Your task to perform on an android device: Open sound settings Image 0: 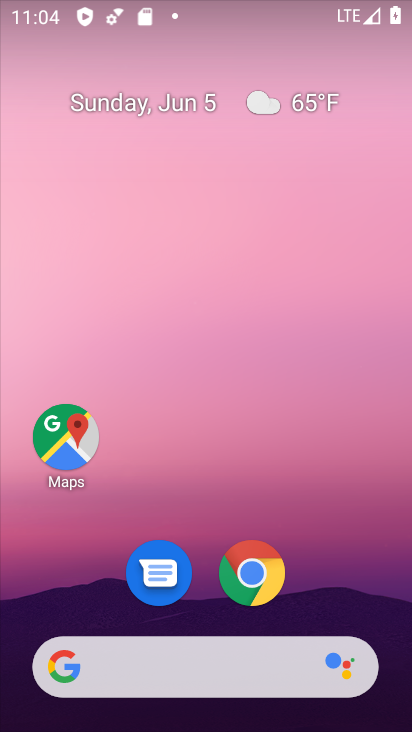
Step 0: drag from (209, 584) to (221, 200)
Your task to perform on an android device: Open sound settings Image 1: 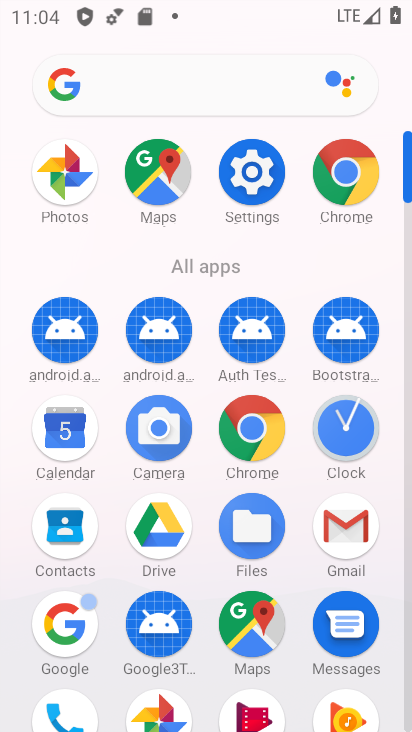
Step 1: drag from (206, 267) to (230, 56)
Your task to perform on an android device: Open sound settings Image 2: 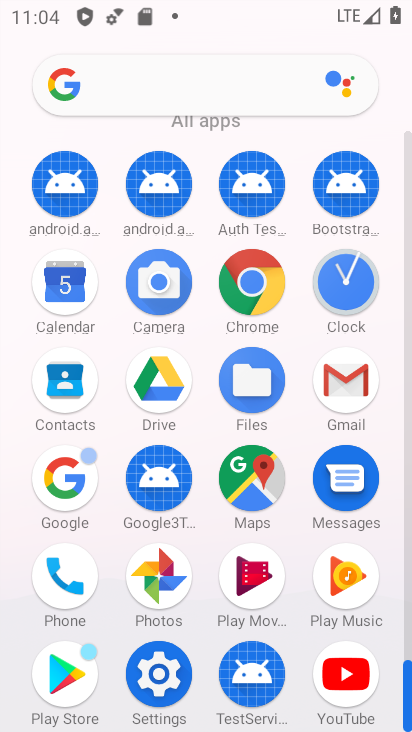
Step 2: click (167, 671)
Your task to perform on an android device: Open sound settings Image 3: 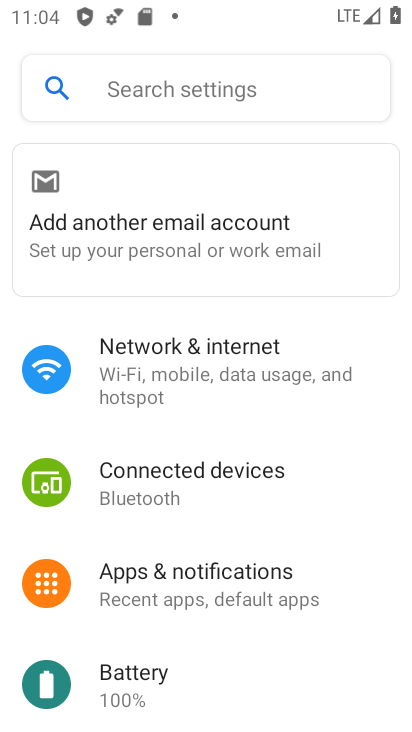
Step 3: drag from (247, 652) to (275, 238)
Your task to perform on an android device: Open sound settings Image 4: 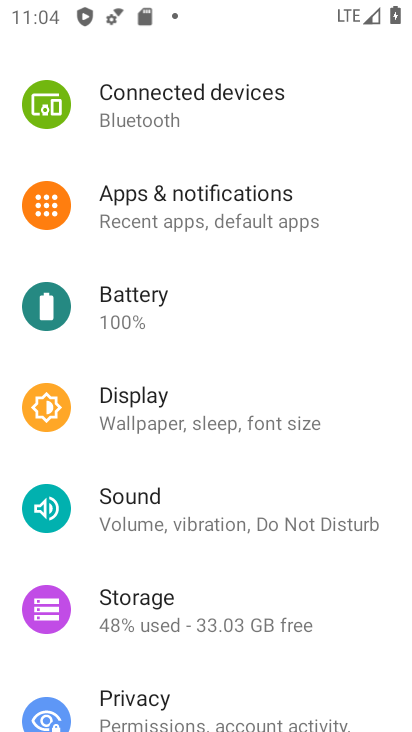
Step 4: click (225, 521)
Your task to perform on an android device: Open sound settings Image 5: 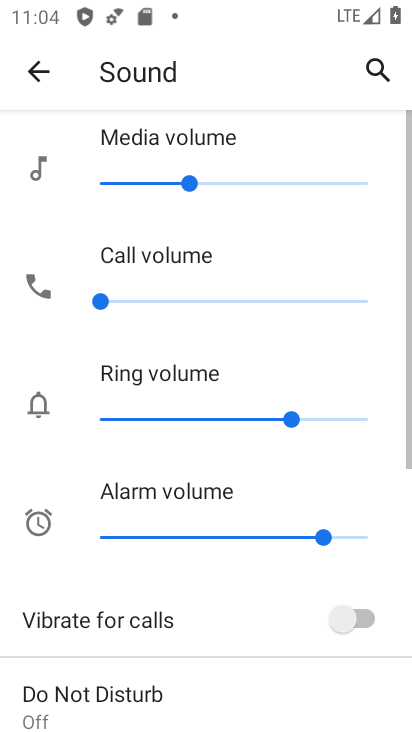
Step 5: task complete